Your task to perform on an android device: allow notifications from all sites in the chrome app Image 0: 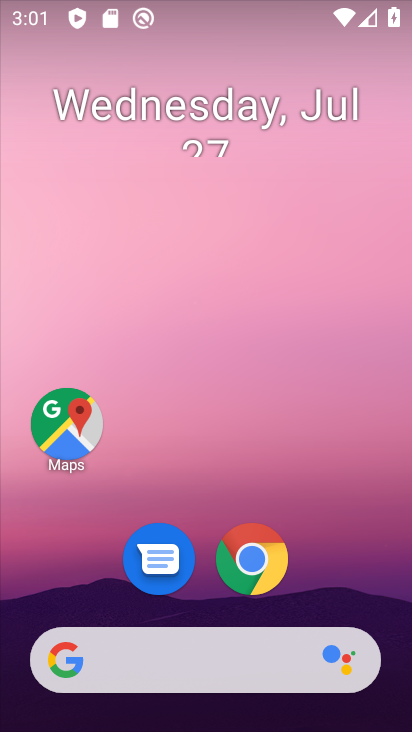
Step 0: click (265, 542)
Your task to perform on an android device: allow notifications from all sites in the chrome app Image 1: 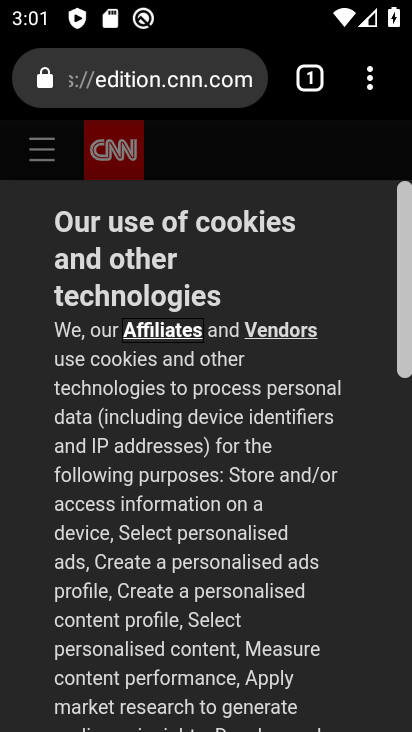
Step 1: drag from (370, 71) to (177, 605)
Your task to perform on an android device: allow notifications from all sites in the chrome app Image 2: 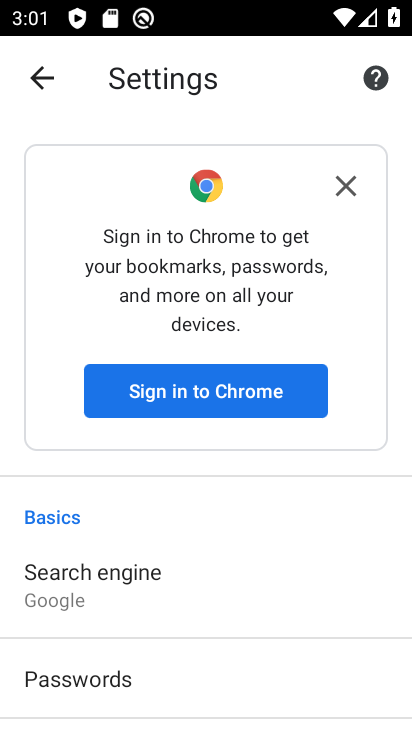
Step 2: click (364, 182)
Your task to perform on an android device: allow notifications from all sites in the chrome app Image 3: 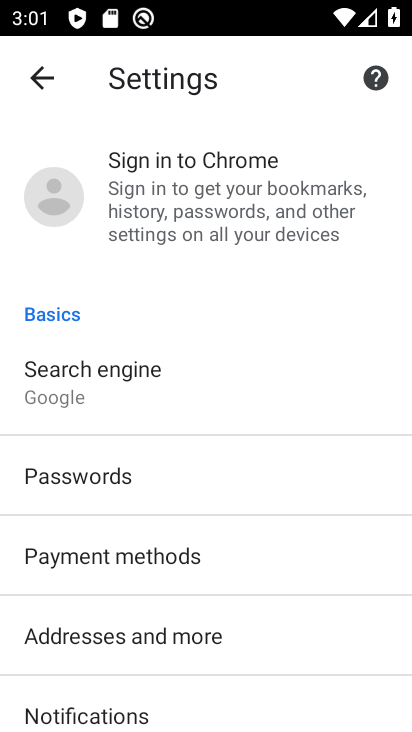
Step 3: click (117, 709)
Your task to perform on an android device: allow notifications from all sites in the chrome app Image 4: 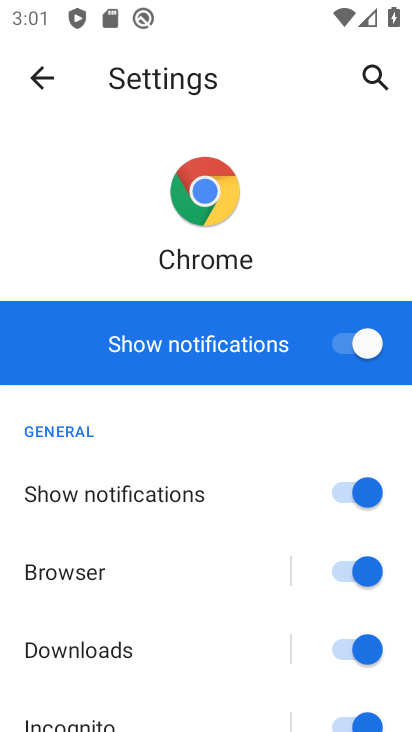
Step 4: task complete